Your task to perform on an android device: Go to internet settings Image 0: 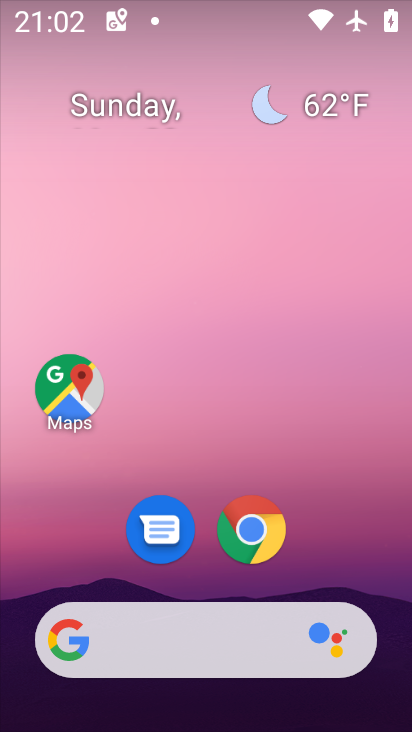
Step 0: press back button
Your task to perform on an android device: Go to internet settings Image 1: 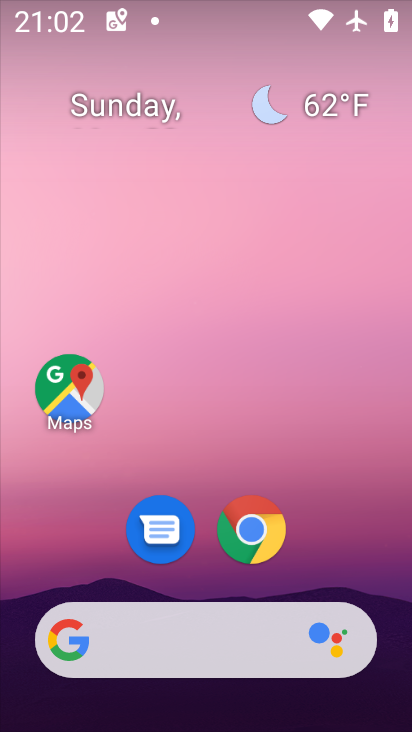
Step 1: press back button
Your task to perform on an android device: Go to internet settings Image 2: 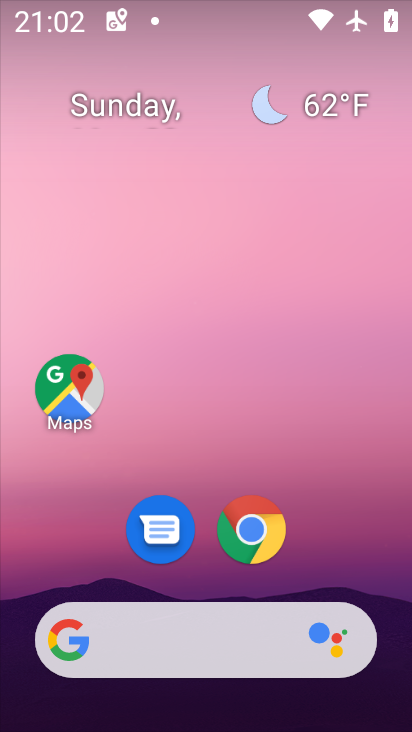
Step 2: click (128, 88)
Your task to perform on an android device: Go to internet settings Image 3: 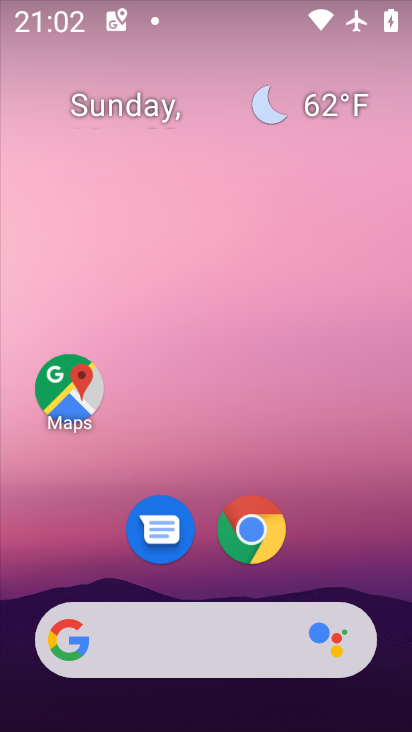
Step 3: drag from (227, 588) to (142, 30)
Your task to perform on an android device: Go to internet settings Image 4: 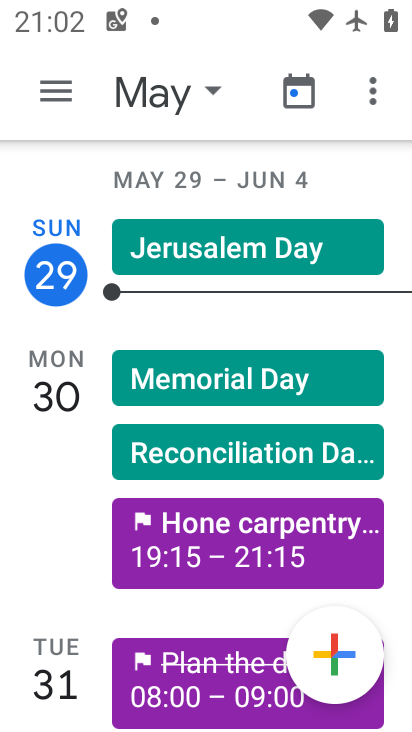
Step 4: drag from (234, 495) to (178, 101)
Your task to perform on an android device: Go to internet settings Image 5: 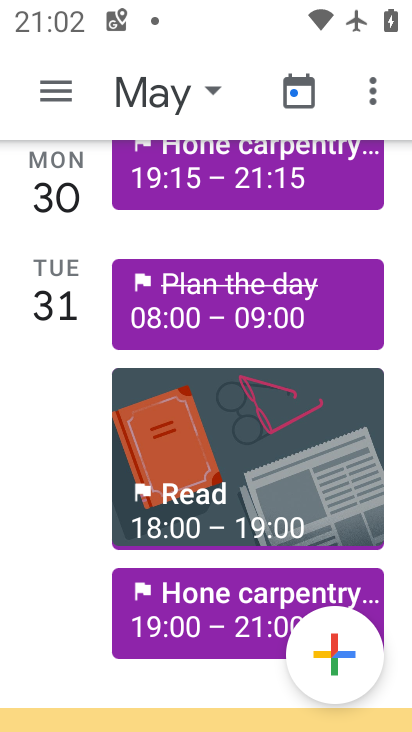
Step 5: press back button
Your task to perform on an android device: Go to internet settings Image 6: 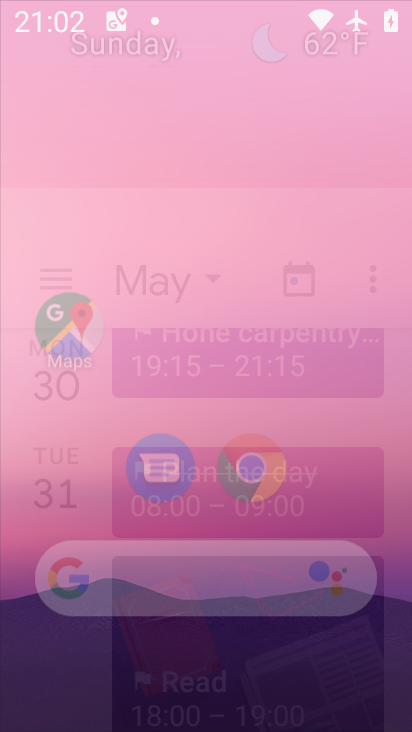
Step 6: press back button
Your task to perform on an android device: Go to internet settings Image 7: 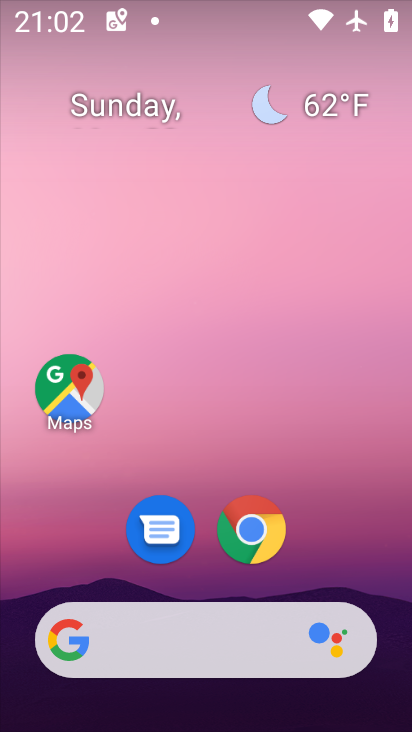
Step 7: press back button
Your task to perform on an android device: Go to internet settings Image 8: 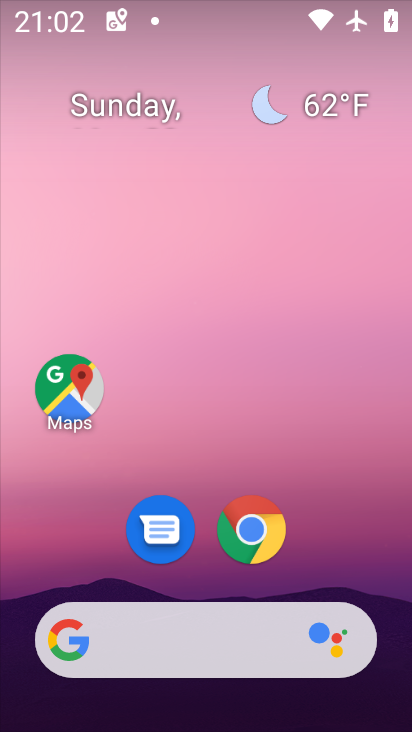
Step 8: drag from (193, 691) to (163, 203)
Your task to perform on an android device: Go to internet settings Image 9: 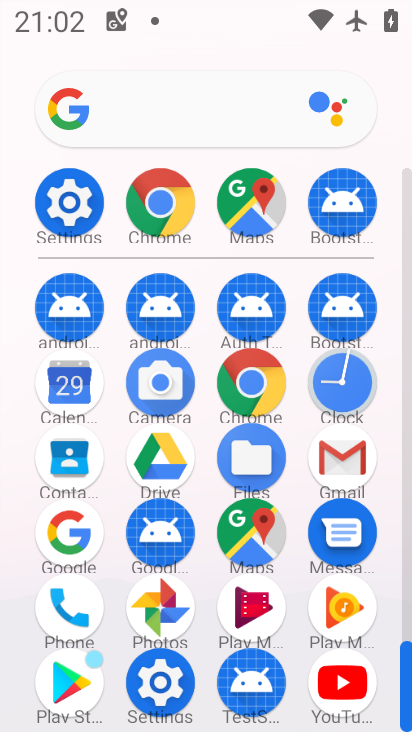
Step 9: click (63, 194)
Your task to perform on an android device: Go to internet settings Image 10: 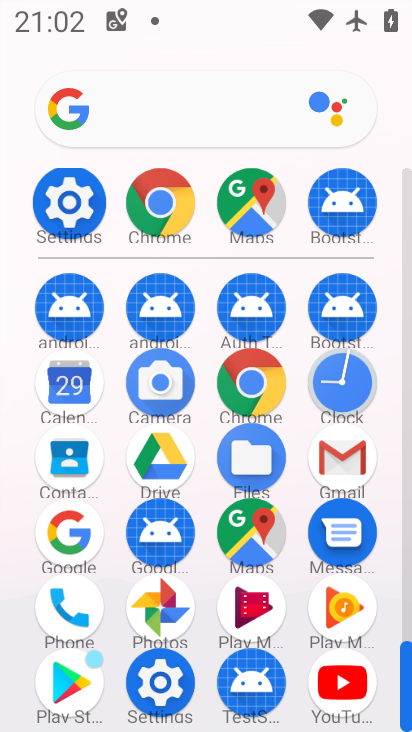
Step 10: click (92, 210)
Your task to perform on an android device: Go to internet settings Image 11: 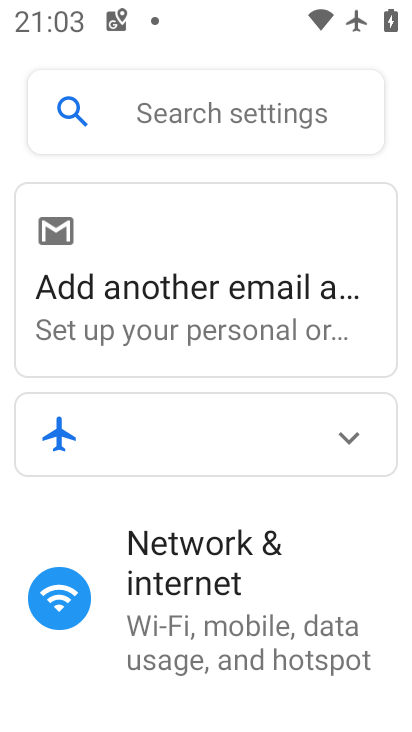
Step 11: click (187, 604)
Your task to perform on an android device: Go to internet settings Image 12: 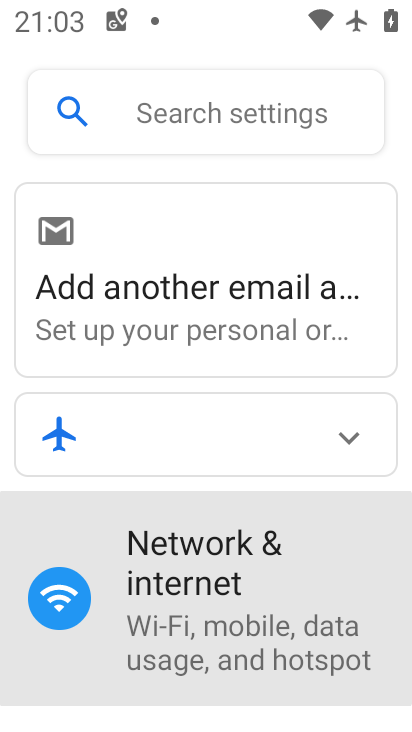
Step 12: click (184, 601)
Your task to perform on an android device: Go to internet settings Image 13: 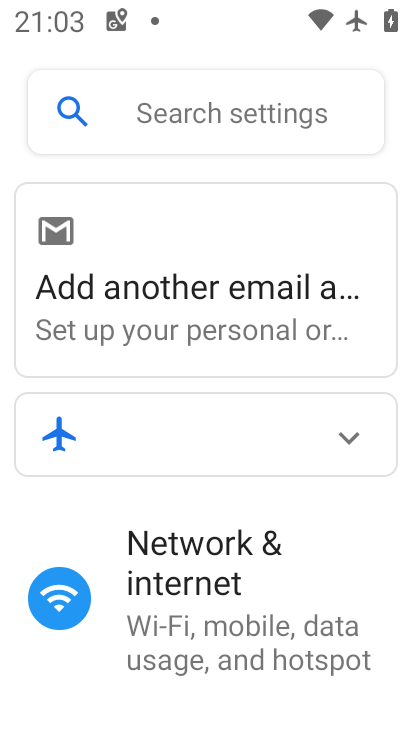
Step 13: click (184, 601)
Your task to perform on an android device: Go to internet settings Image 14: 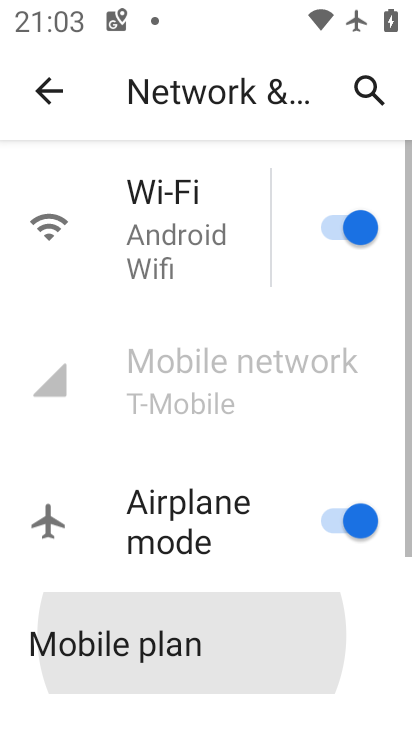
Step 14: click (184, 599)
Your task to perform on an android device: Go to internet settings Image 15: 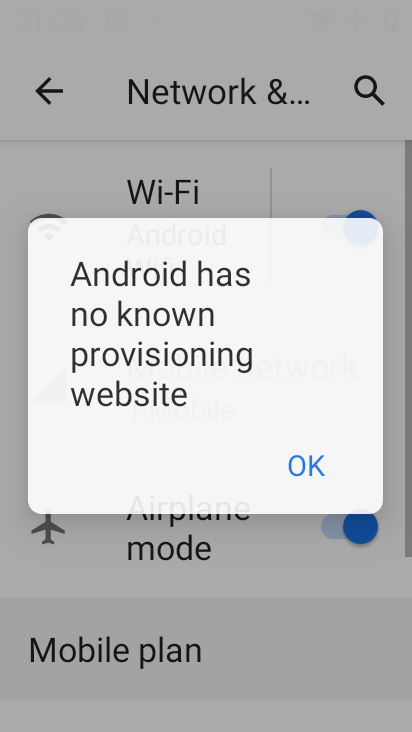
Step 15: click (186, 597)
Your task to perform on an android device: Go to internet settings Image 16: 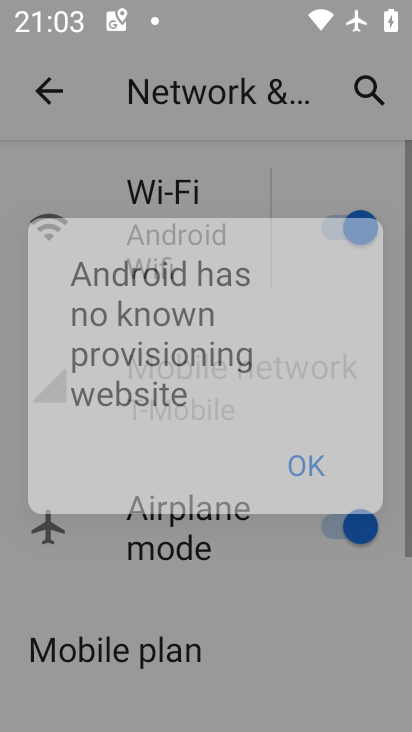
Step 16: click (187, 595)
Your task to perform on an android device: Go to internet settings Image 17: 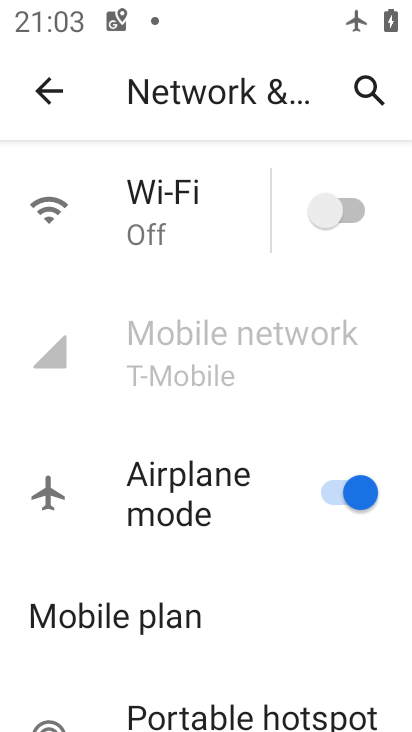
Step 17: task complete